Your task to perform on an android device: toggle show notifications on the lock screen Image 0: 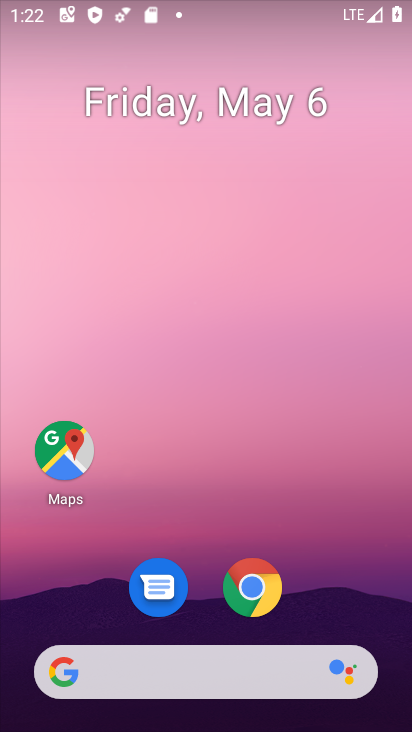
Step 0: drag from (311, 613) to (291, 127)
Your task to perform on an android device: toggle show notifications on the lock screen Image 1: 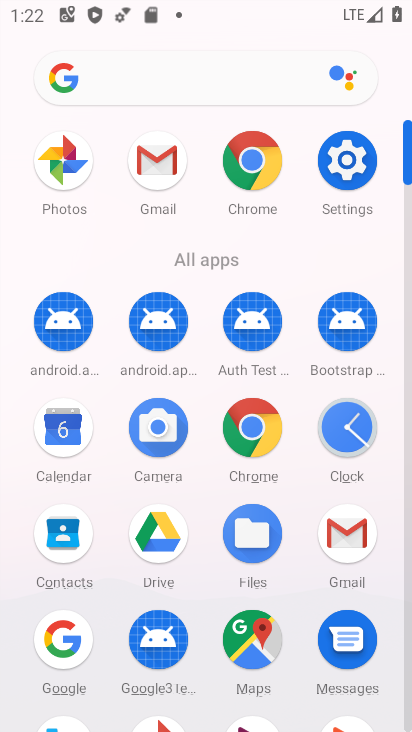
Step 1: click (350, 177)
Your task to perform on an android device: toggle show notifications on the lock screen Image 2: 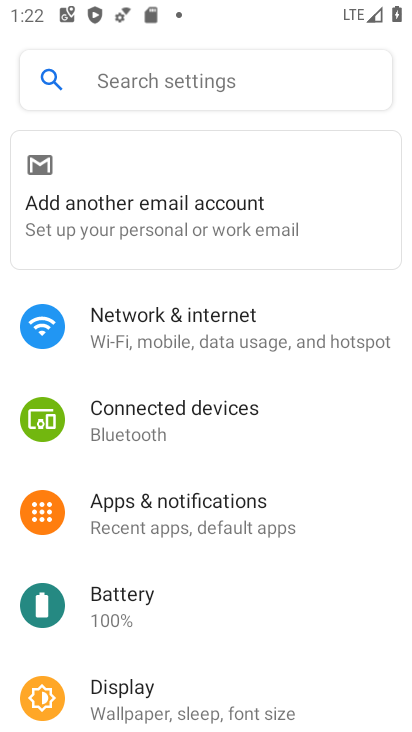
Step 2: click (245, 521)
Your task to perform on an android device: toggle show notifications on the lock screen Image 3: 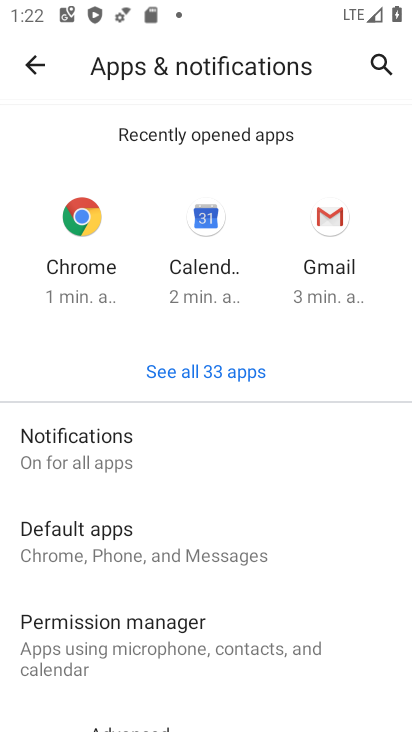
Step 3: click (133, 465)
Your task to perform on an android device: toggle show notifications on the lock screen Image 4: 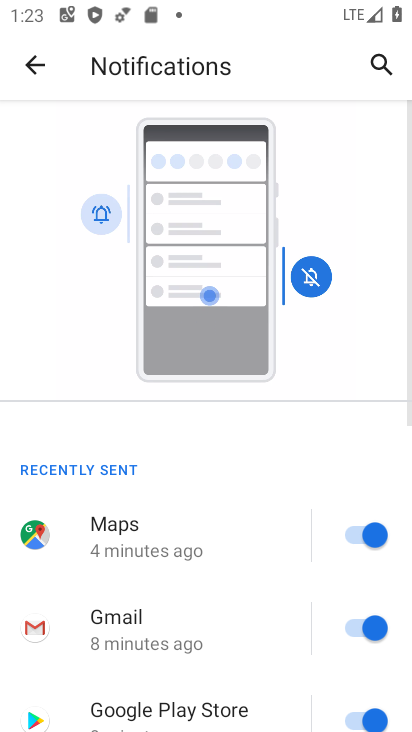
Step 4: drag from (209, 666) to (209, 324)
Your task to perform on an android device: toggle show notifications on the lock screen Image 5: 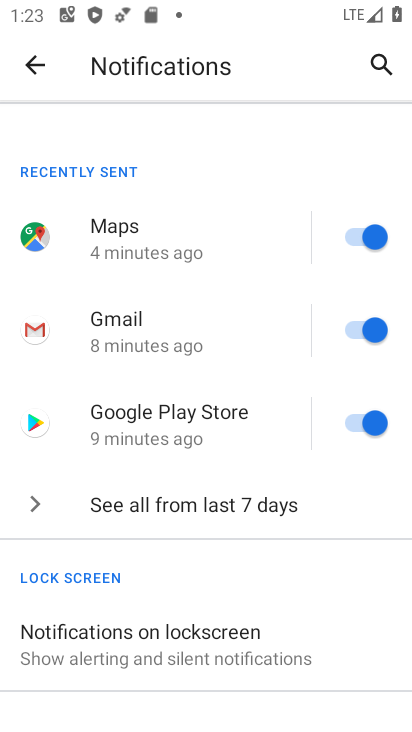
Step 5: click (192, 651)
Your task to perform on an android device: toggle show notifications on the lock screen Image 6: 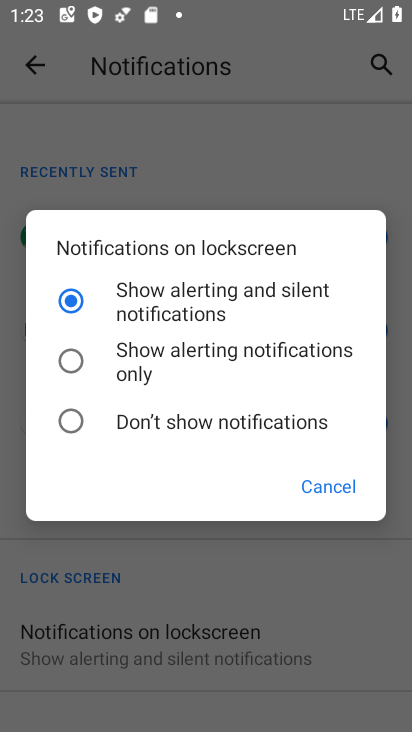
Step 6: click (164, 358)
Your task to perform on an android device: toggle show notifications on the lock screen Image 7: 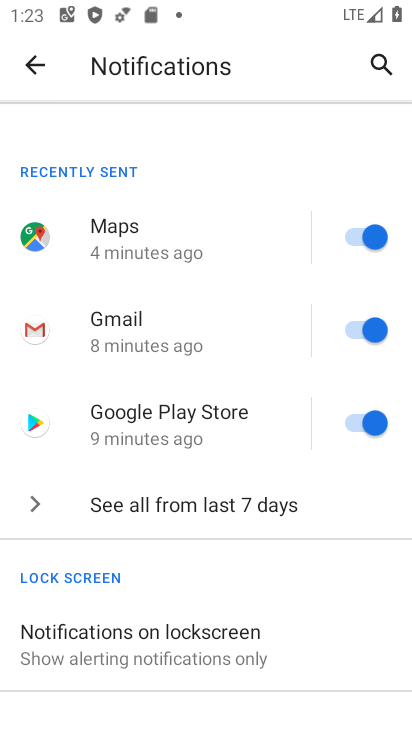
Step 7: task complete